Your task to perform on an android device: turn on showing notifications on the lock screen Image 0: 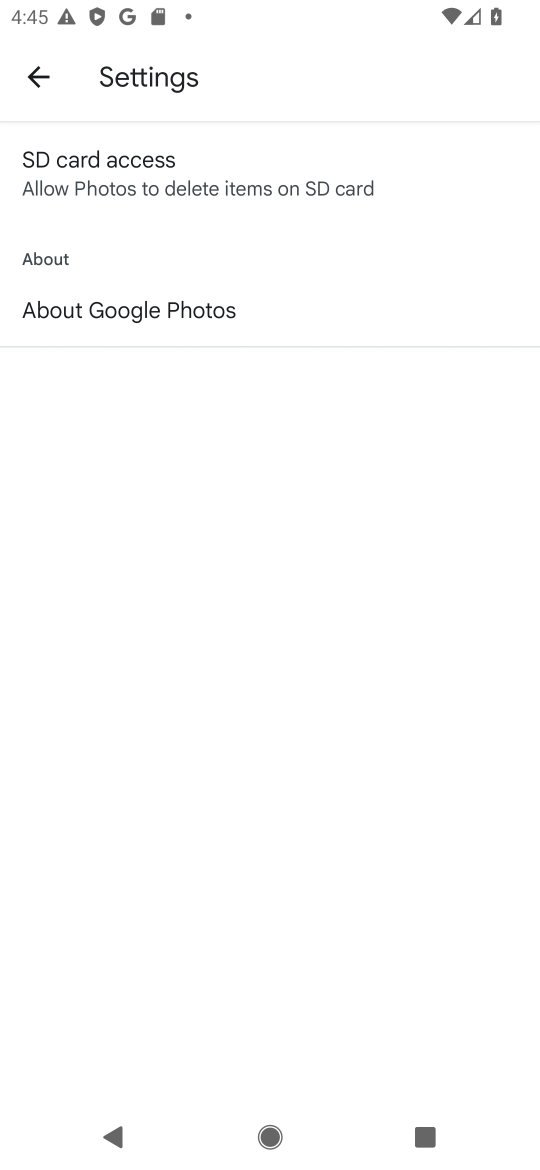
Step 0: press home button
Your task to perform on an android device: turn on showing notifications on the lock screen Image 1: 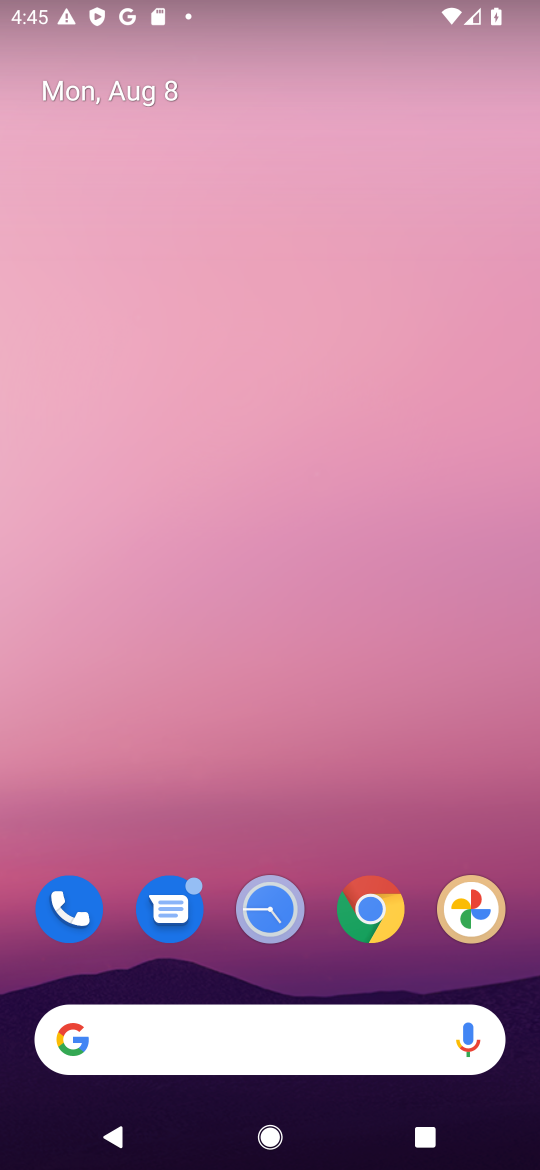
Step 1: drag from (312, 999) to (347, 215)
Your task to perform on an android device: turn on showing notifications on the lock screen Image 2: 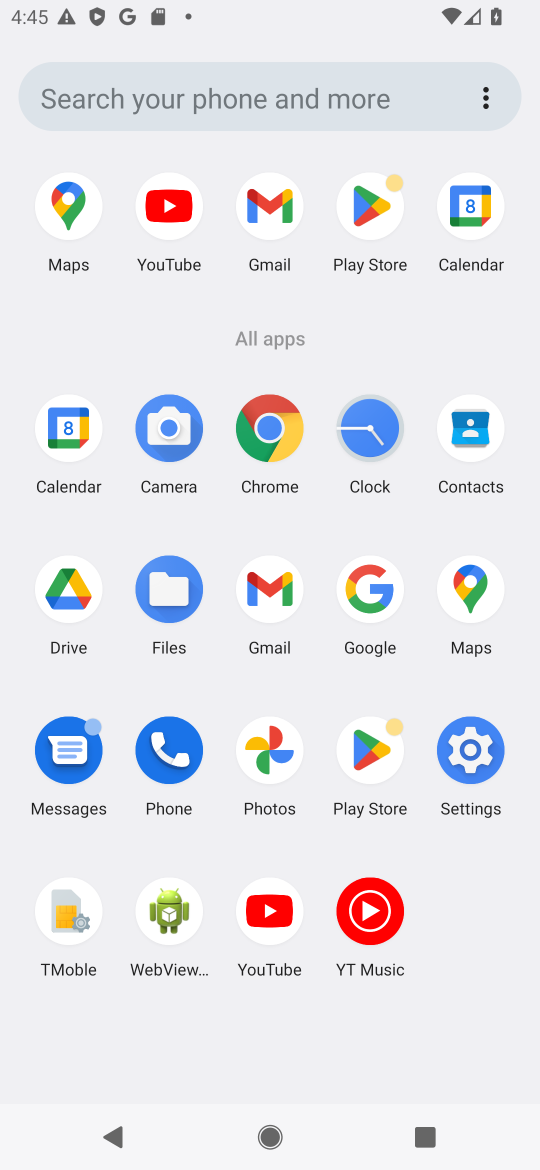
Step 2: click (478, 749)
Your task to perform on an android device: turn on showing notifications on the lock screen Image 3: 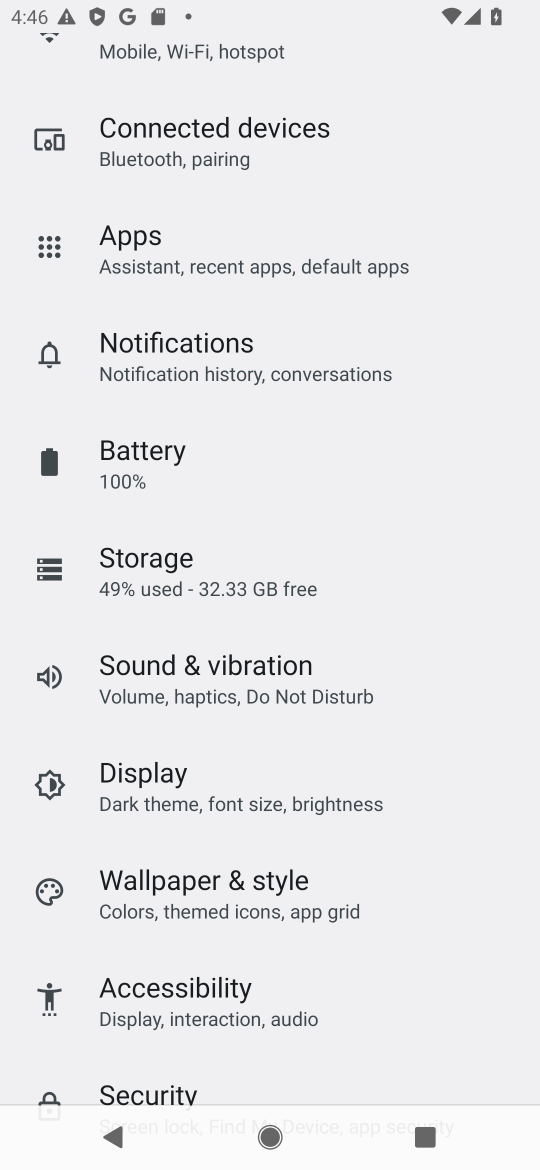
Step 3: click (200, 358)
Your task to perform on an android device: turn on showing notifications on the lock screen Image 4: 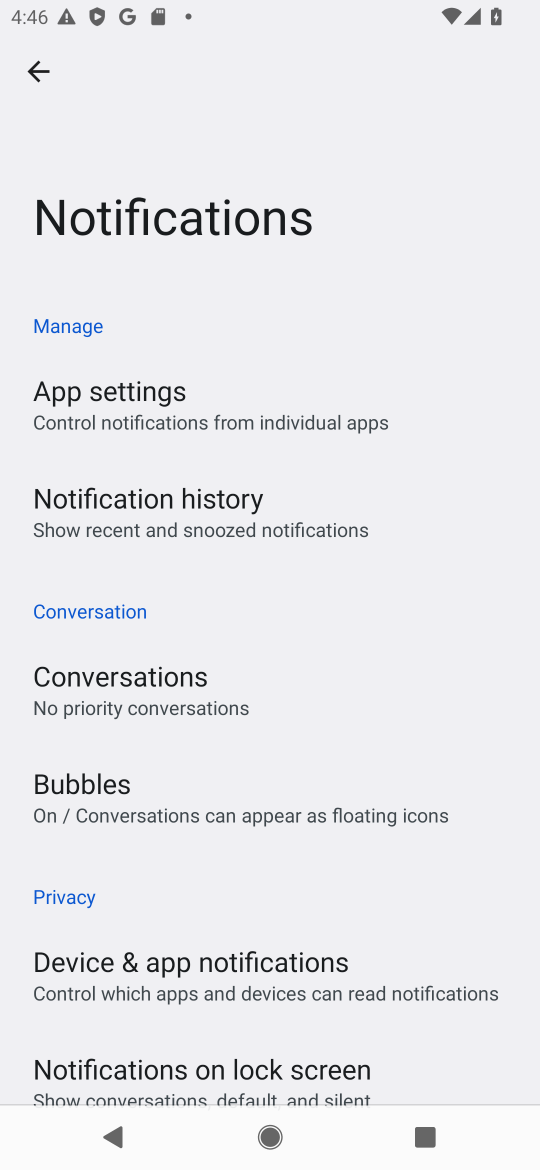
Step 4: drag from (313, 879) to (372, 146)
Your task to perform on an android device: turn on showing notifications on the lock screen Image 5: 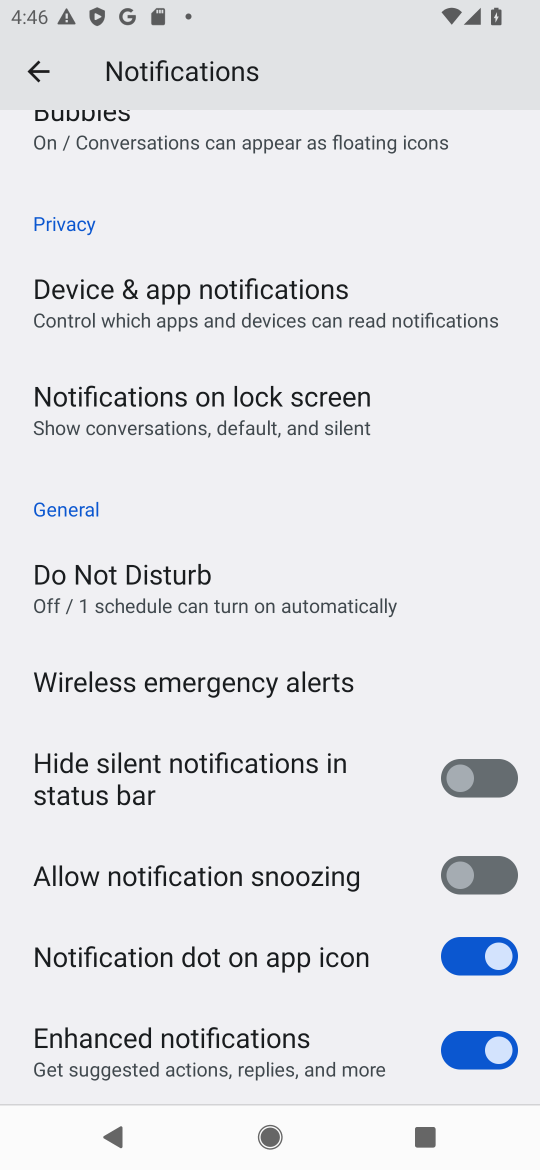
Step 5: click (203, 415)
Your task to perform on an android device: turn on showing notifications on the lock screen Image 6: 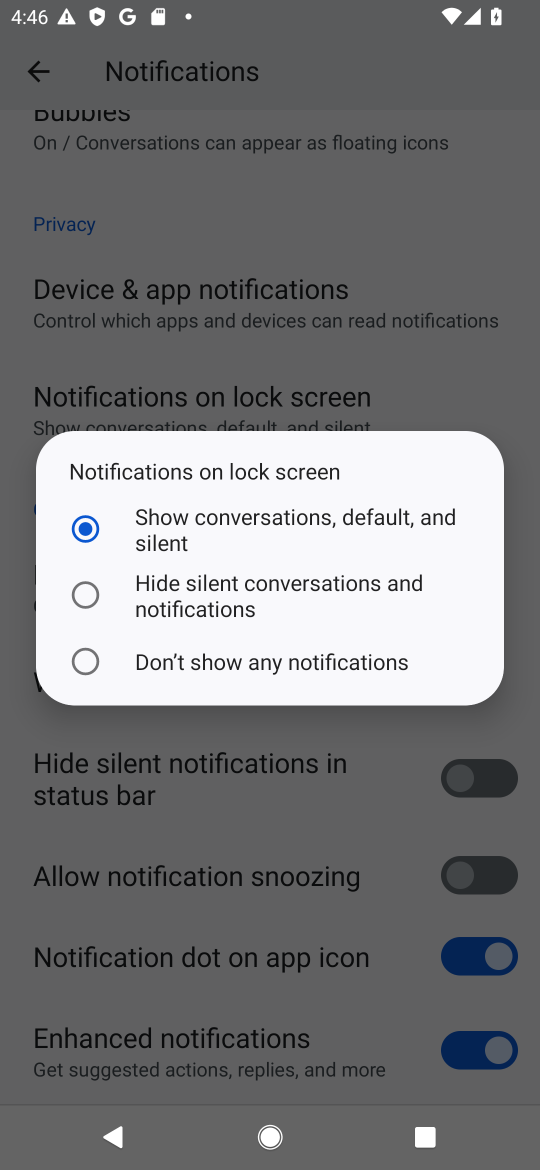
Step 6: task complete